Your task to perform on an android device: Show me popular videos on Youtube Image 0: 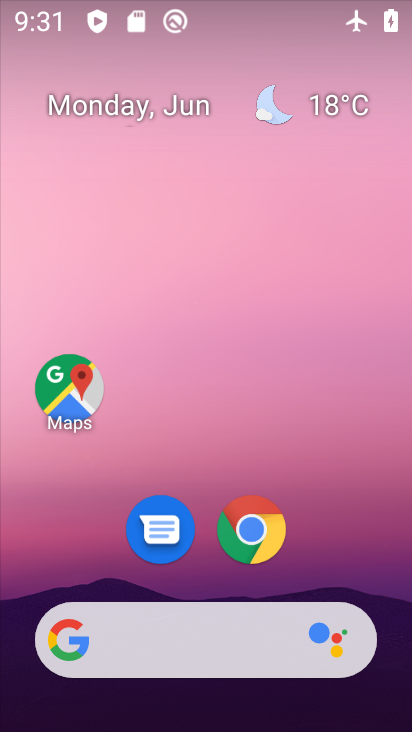
Step 0: drag from (182, 578) to (163, 20)
Your task to perform on an android device: Show me popular videos on Youtube Image 1: 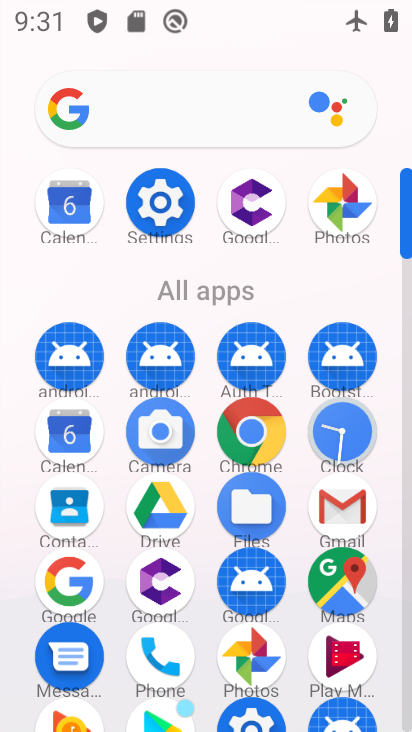
Step 1: drag from (193, 616) to (130, 47)
Your task to perform on an android device: Show me popular videos on Youtube Image 2: 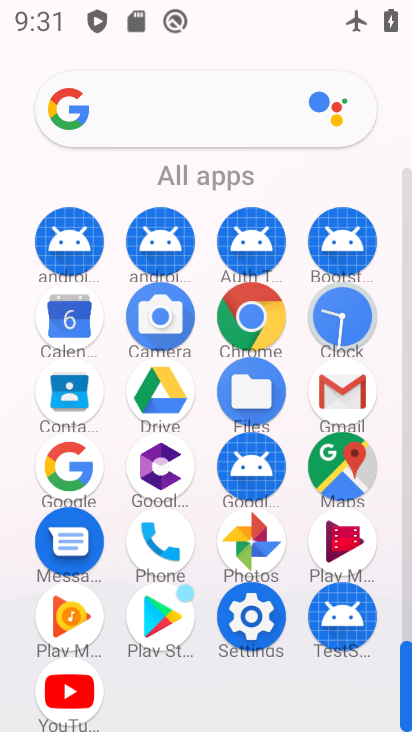
Step 2: click (51, 696)
Your task to perform on an android device: Show me popular videos on Youtube Image 3: 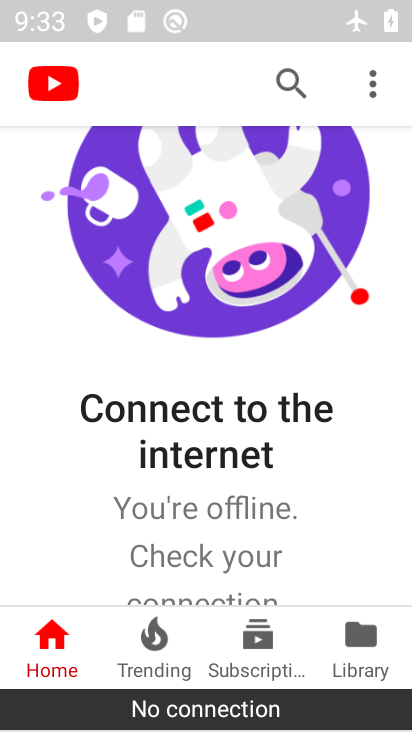
Step 3: task complete